Your task to perform on an android device: Open calendar and show me the first week of next month Image 0: 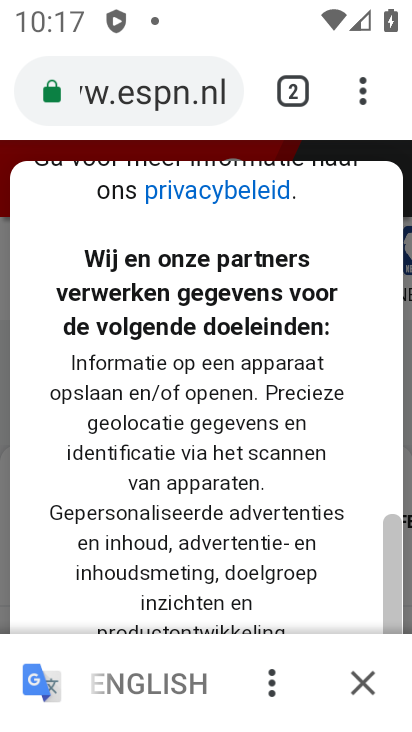
Step 0: press home button
Your task to perform on an android device: Open calendar and show me the first week of next month Image 1: 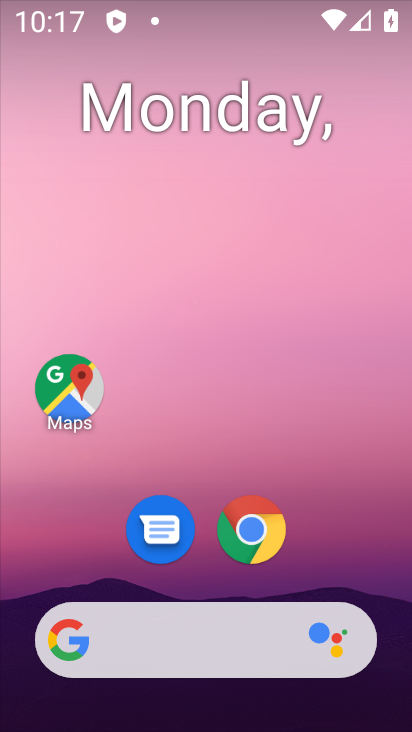
Step 1: drag from (188, 428) to (194, 1)
Your task to perform on an android device: Open calendar and show me the first week of next month Image 2: 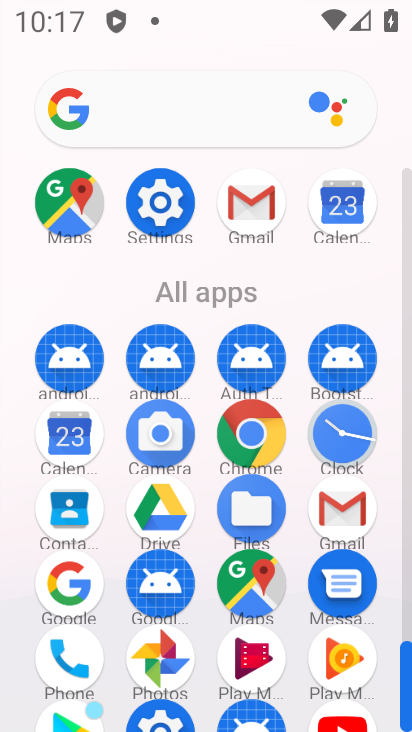
Step 2: click (67, 436)
Your task to perform on an android device: Open calendar and show me the first week of next month Image 3: 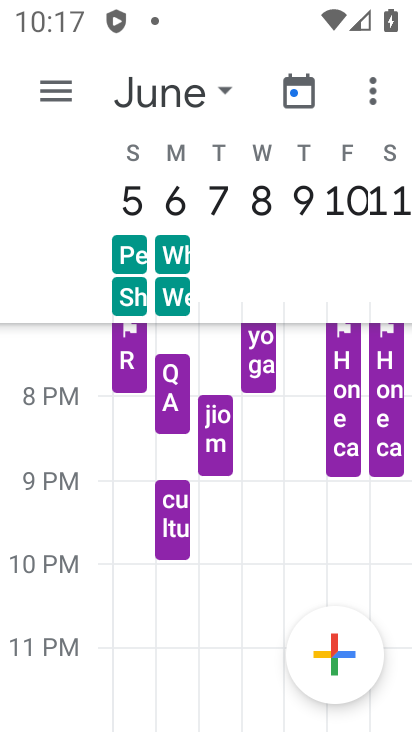
Step 3: click (217, 87)
Your task to perform on an android device: Open calendar and show me the first week of next month Image 4: 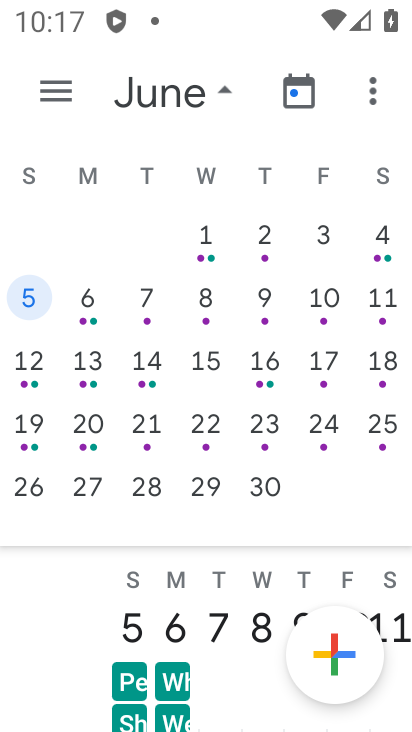
Step 4: click (206, 232)
Your task to perform on an android device: Open calendar and show me the first week of next month Image 5: 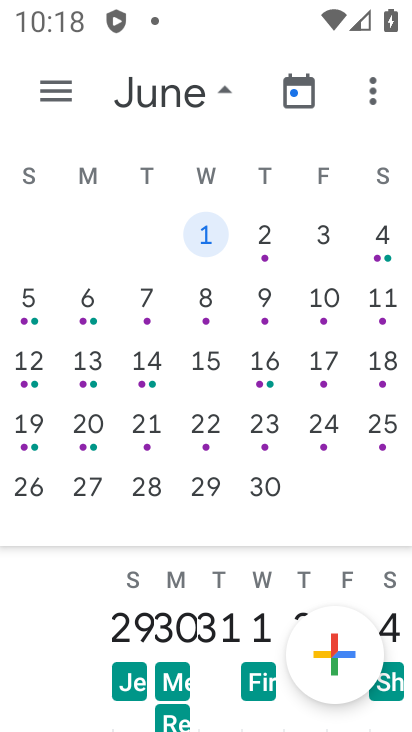
Step 5: task complete